Your task to perform on an android device: set the stopwatch Image 0: 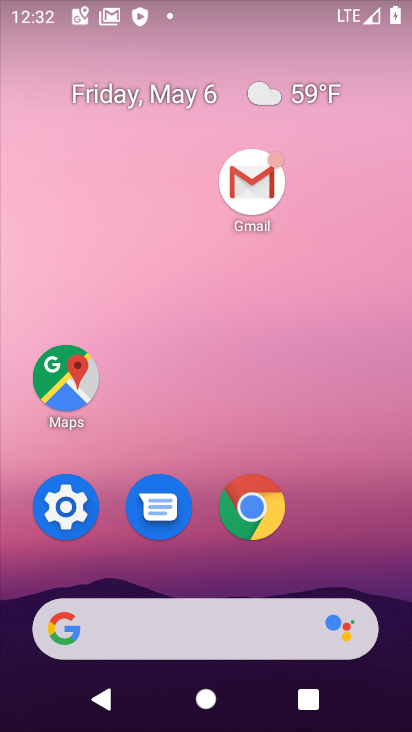
Step 0: drag from (343, 527) to (332, 28)
Your task to perform on an android device: set the stopwatch Image 1: 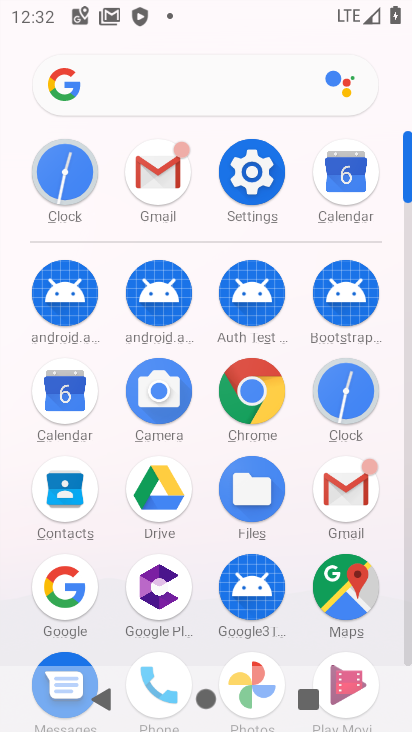
Step 1: click (349, 402)
Your task to perform on an android device: set the stopwatch Image 2: 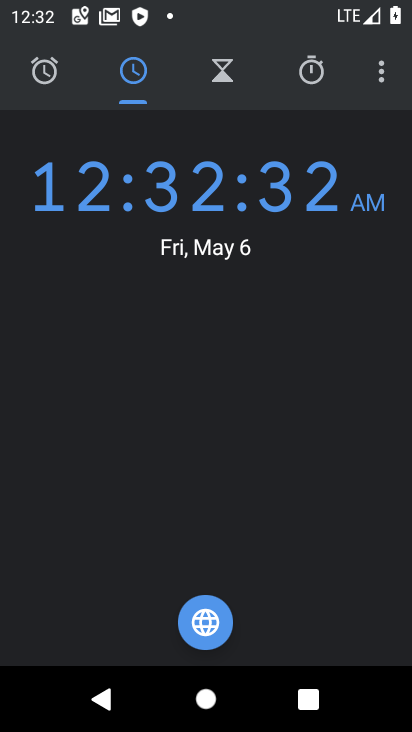
Step 2: click (309, 63)
Your task to perform on an android device: set the stopwatch Image 3: 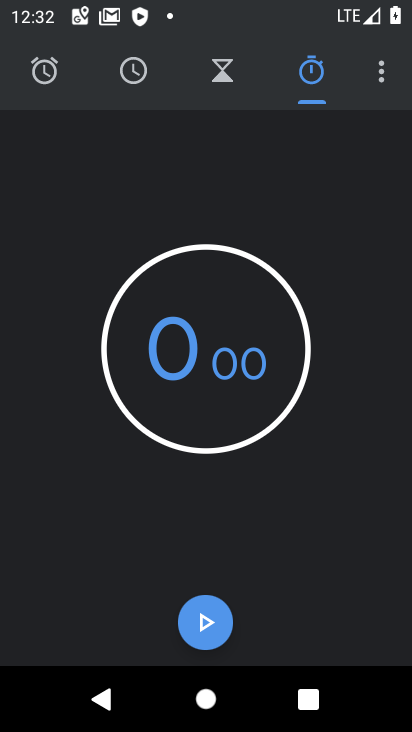
Step 3: task complete